Your task to perform on an android device: Open sound settings Image 0: 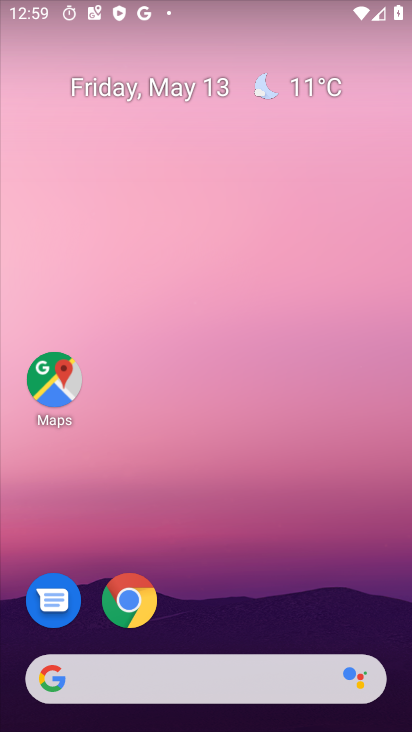
Step 0: drag from (335, 548) to (328, 70)
Your task to perform on an android device: Open sound settings Image 1: 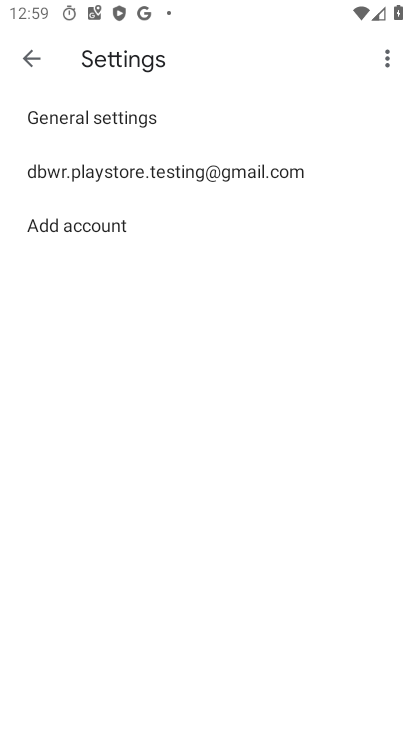
Step 1: press home button
Your task to perform on an android device: Open sound settings Image 2: 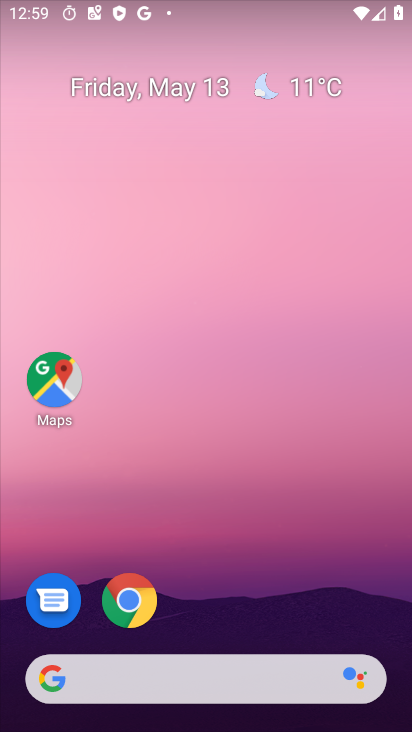
Step 2: drag from (262, 618) to (221, 114)
Your task to perform on an android device: Open sound settings Image 3: 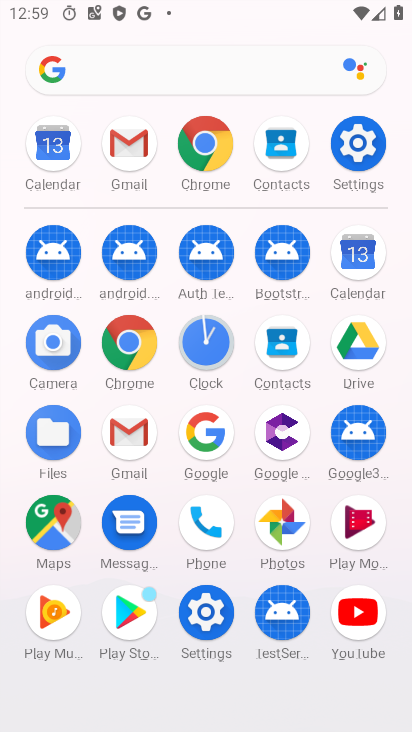
Step 3: click (362, 161)
Your task to perform on an android device: Open sound settings Image 4: 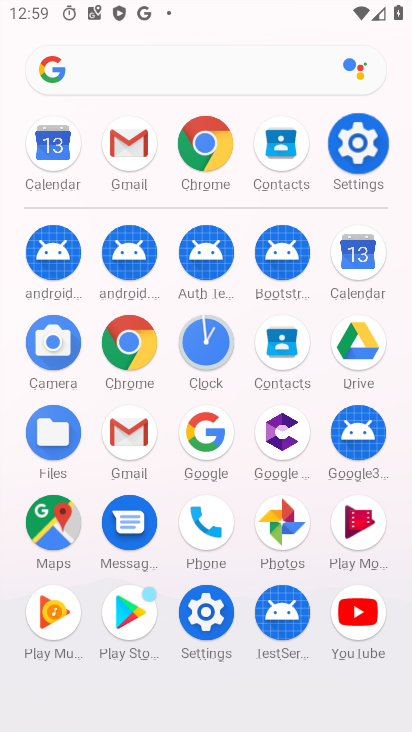
Step 4: click (362, 161)
Your task to perform on an android device: Open sound settings Image 5: 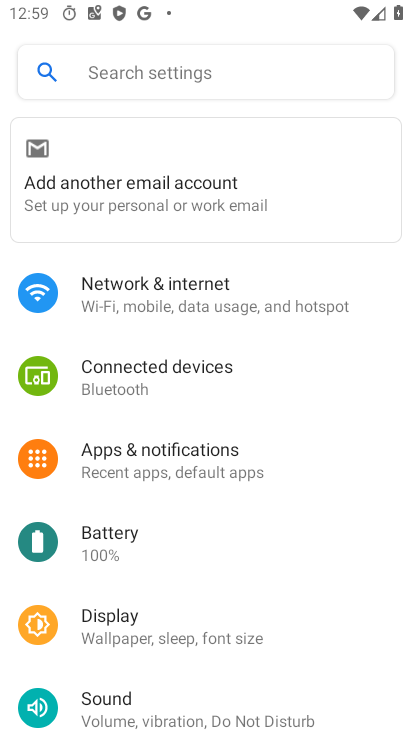
Step 5: drag from (231, 656) to (226, 230)
Your task to perform on an android device: Open sound settings Image 6: 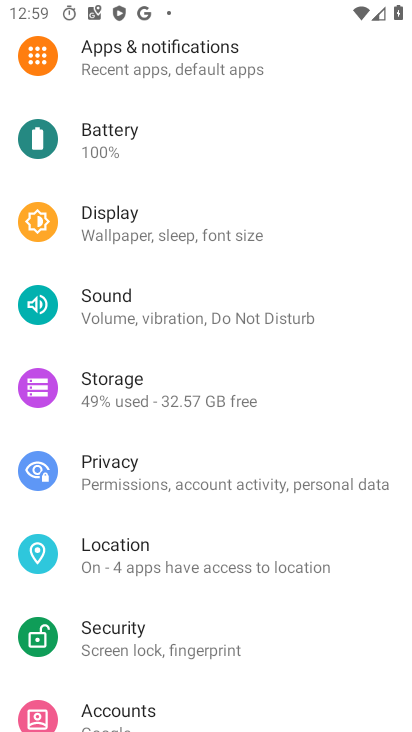
Step 6: click (152, 308)
Your task to perform on an android device: Open sound settings Image 7: 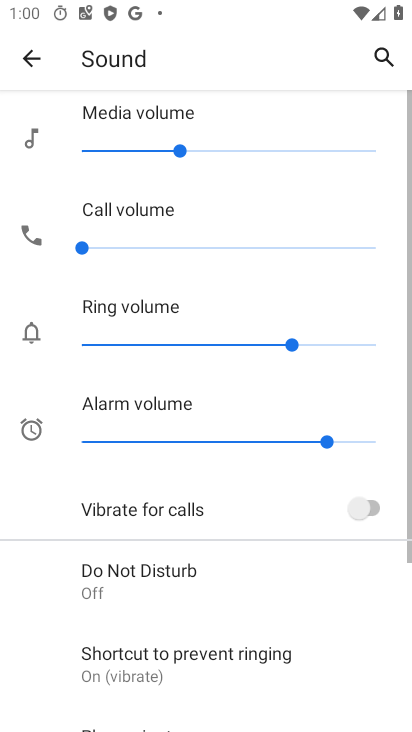
Step 7: task complete